Your task to perform on an android device: Open calendar and show me the second week of next month Image 0: 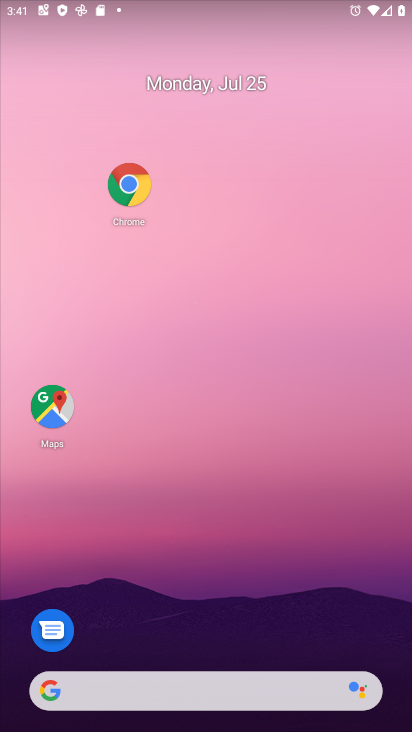
Step 0: drag from (312, 637) to (306, 137)
Your task to perform on an android device: Open calendar and show me the second week of next month Image 1: 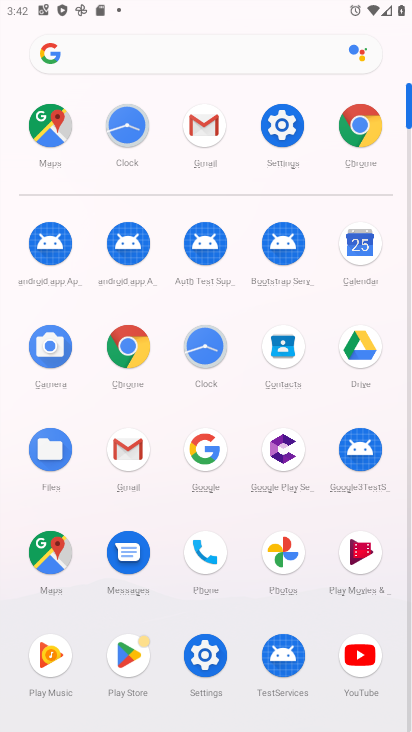
Step 1: click (363, 254)
Your task to perform on an android device: Open calendar and show me the second week of next month Image 2: 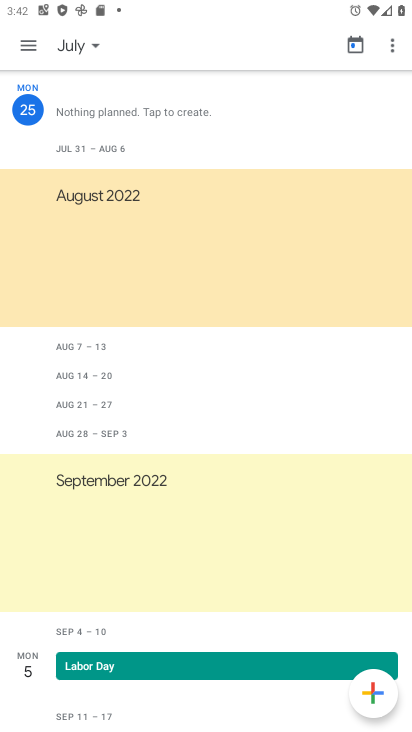
Step 2: task complete